Your task to perform on an android device: check storage Image 0: 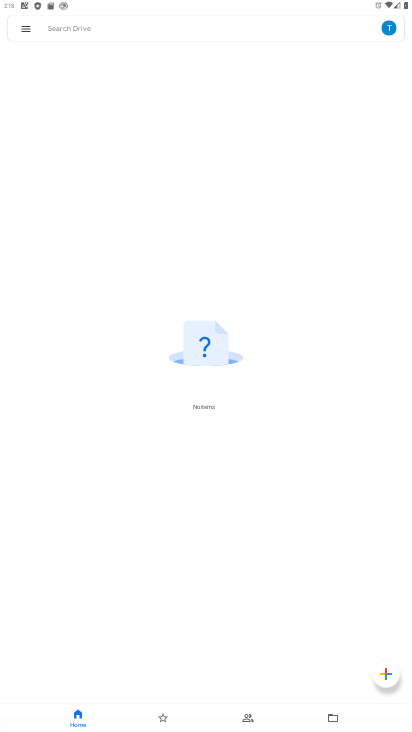
Step 0: press home button
Your task to perform on an android device: check storage Image 1: 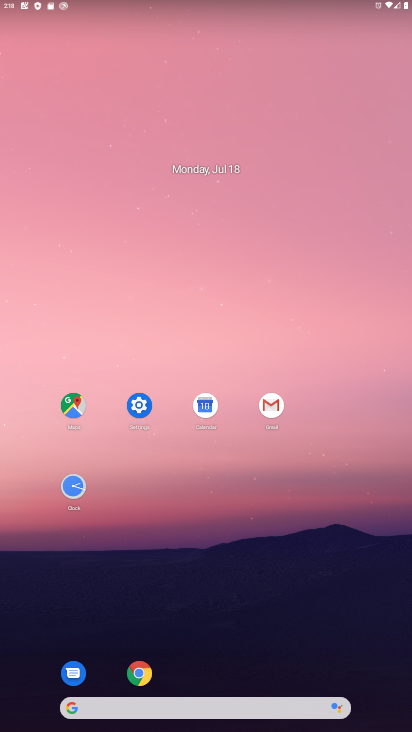
Step 1: click (133, 407)
Your task to perform on an android device: check storage Image 2: 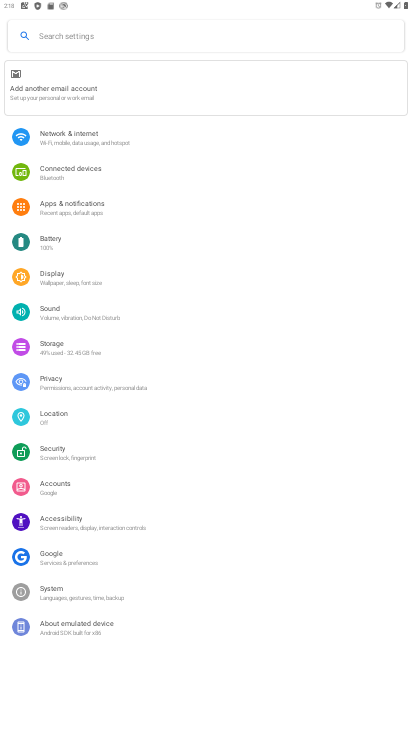
Step 2: click (57, 346)
Your task to perform on an android device: check storage Image 3: 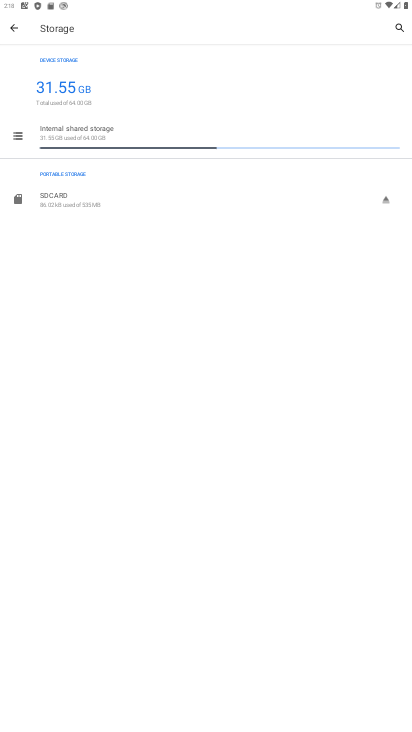
Step 3: task complete